Your task to perform on an android device: Search for lenovo thinkpad on bestbuy.com, select the first entry, and add it to the cart. Image 0: 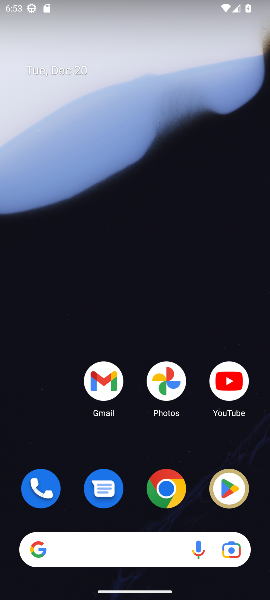
Step 0: press home button
Your task to perform on an android device: Search for lenovo thinkpad on bestbuy.com, select the first entry, and add it to the cart. Image 1: 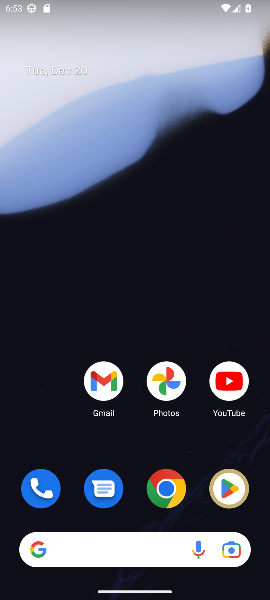
Step 1: drag from (44, 433) to (31, 88)
Your task to perform on an android device: Search for lenovo thinkpad on bestbuy.com, select the first entry, and add it to the cart. Image 2: 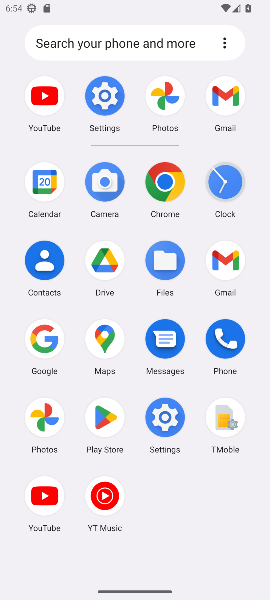
Step 2: click (39, 345)
Your task to perform on an android device: Search for lenovo thinkpad on bestbuy.com, select the first entry, and add it to the cart. Image 3: 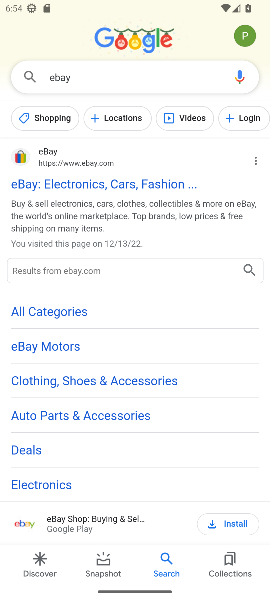
Step 3: click (128, 77)
Your task to perform on an android device: Search for lenovo thinkpad on bestbuy.com, select the first entry, and add it to the cart. Image 4: 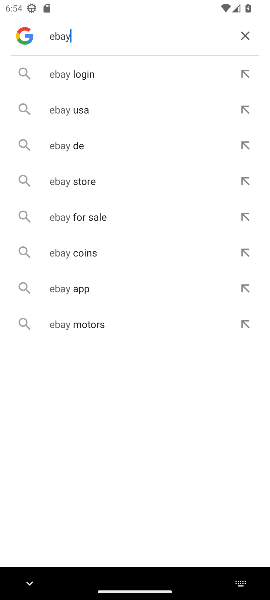
Step 4: click (243, 36)
Your task to perform on an android device: Search for lenovo thinkpad on bestbuy.com, select the first entry, and add it to the cart. Image 5: 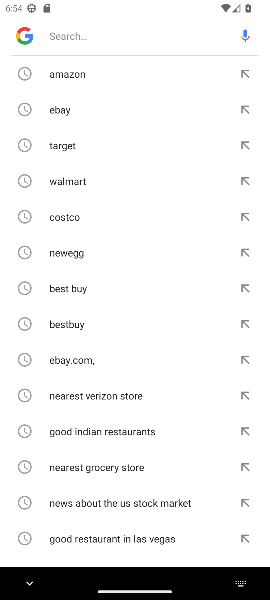
Step 5: type "bestbuy.com"
Your task to perform on an android device: Search for lenovo thinkpad on bestbuy.com, select the first entry, and add it to the cart. Image 6: 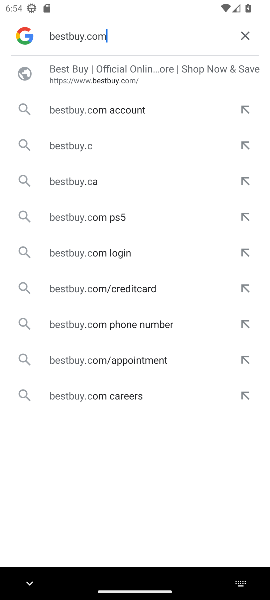
Step 6: press enter
Your task to perform on an android device: Search for lenovo thinkpad on bestbuy.com, select the first entry, and add it to the cart. Image 7: 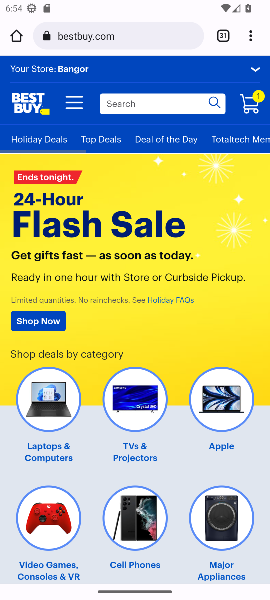
Step 7: click (122, 104)
Your task to perform on an android device: Search for lenovo thinkpad on bestbuy.com, select the first entry, and add it to the cart. Image 8: 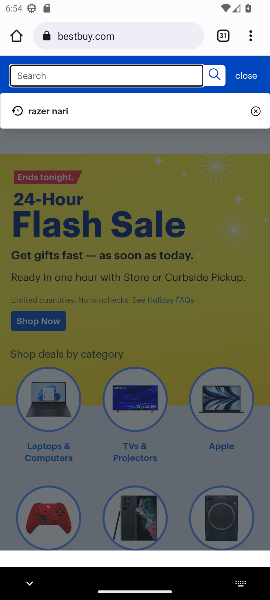
Step 8: type "lenovo thinkpad"
Your task to perform on an android device: Search for lenovo thinkpad on bestbuy.com, select the first entry, and add it to the cart. Image 9: 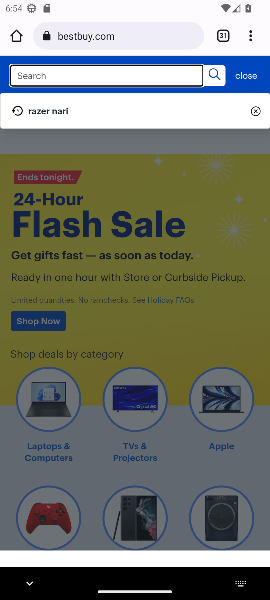
Step 9: press enter
Your task to perform on an android device: Search for lenovo thinkpad on bestbuy.com, select the first entry, and add it to the cart. Image 10: 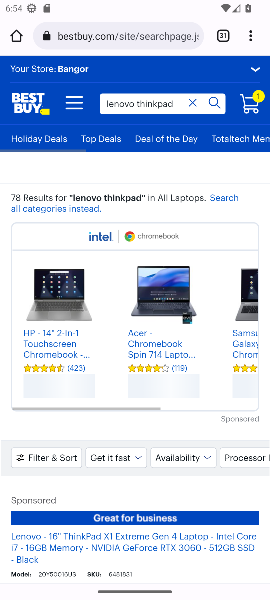
Step 10: drag from (150, 467) to (149, 203)
Your task to perform on an android device: Search for lenovo thinkpad on bestbuy.com, select the first entry, and add it to the cart. Image 11: 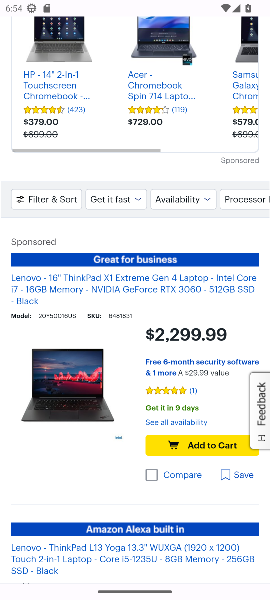
Step 11: click (205, 443)
Your task to perform on an android device: Search for lenovo thinkpad on bestbuy.com, select the first entry, and add it to the cart. Image 12: 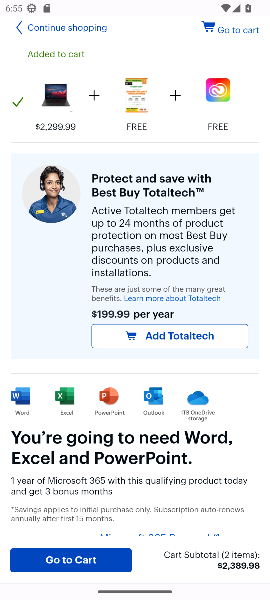
Step 12: task complete